Your task to perform on an android device: clear all cookies in the chrome app Image 0: 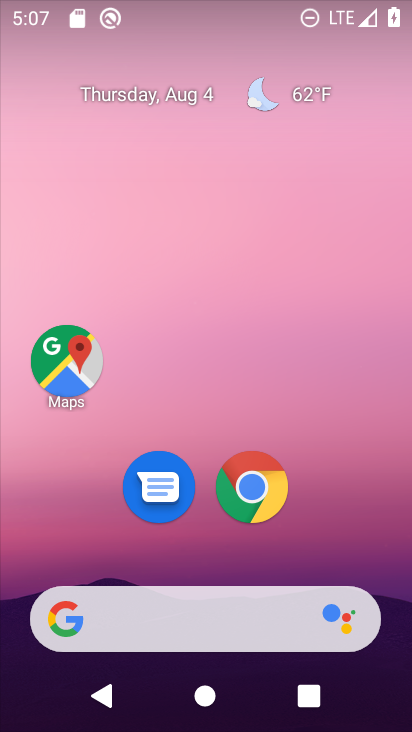
Step 0: click (240, 489)
Your task to perform on an android device: clear all cookies in the chrome app Image 1: 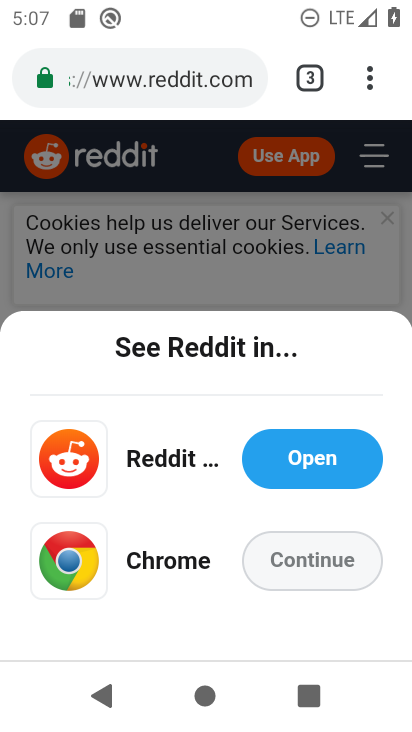
Step 1: drag from (364, 81) to (141, 148)
Your task to perform on an android device: clear all cookies in the chrome app Image 2: 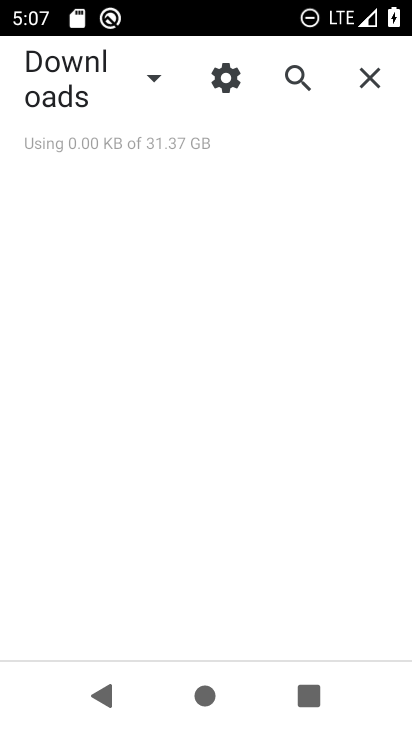
Step 2: press back button
Your task to perform on an android device: clear all cookies in the chrome app Image 3: 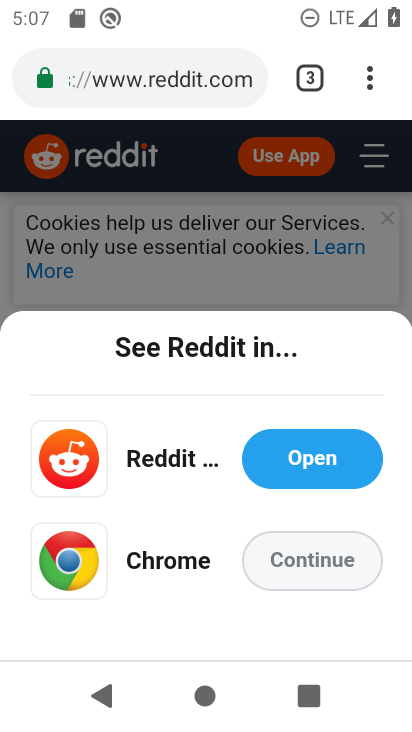
Step 3: drag from (370, 75) to (98, 436)
Your task to perform on an android device: clear all cookies in the chrome app Image 4: 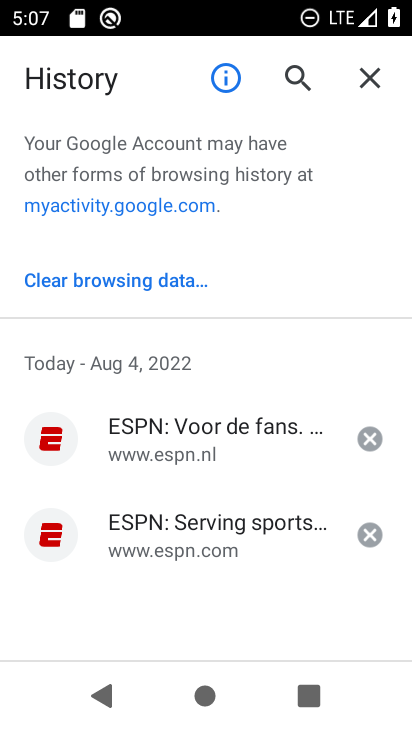
Step 4: click (86, 272)
Your task to perform on an android device: clear all cookies in the chrome app Image 5: 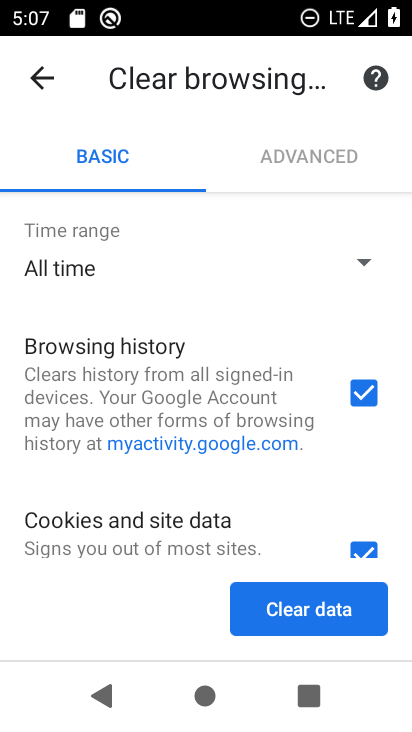
Step 5: drag from (208, 491) to (227, 350)
Your task to perform on an android device: clear all cookies in the chrome app Image 6: 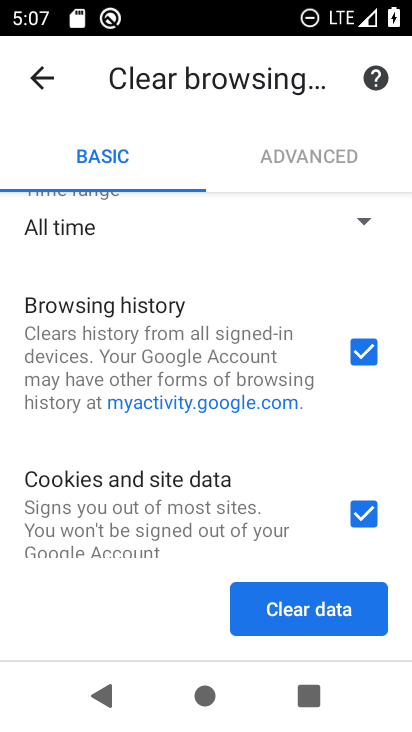
Step 6: click (366, 345)
Your task to perform on an android device: clear all cookies in the chrome app Image 7: 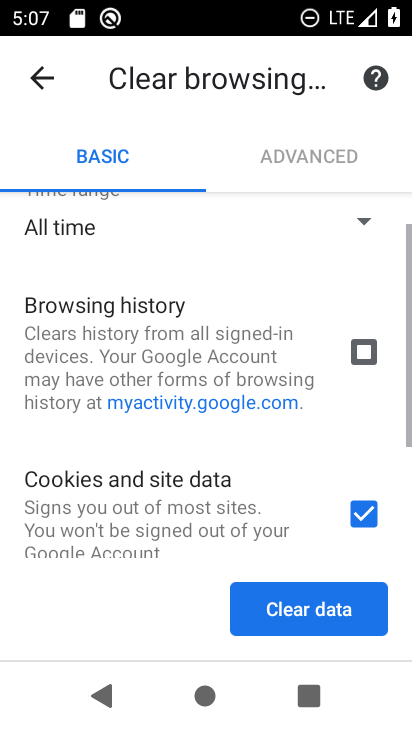
Step 7: drag from (151, 486) to (259, 189)
Your task to perform on an android device: clear all cookies in the chrome app Image 8: 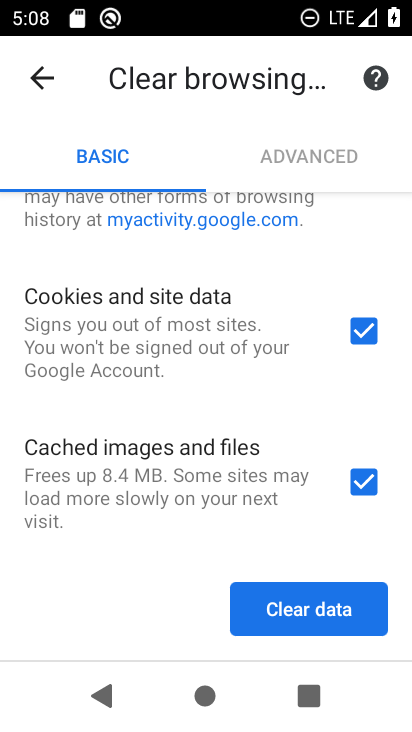
Step 8: click (369, 477)
Your task to perform on an android device: clear all cookies in the chrome app Image 9: 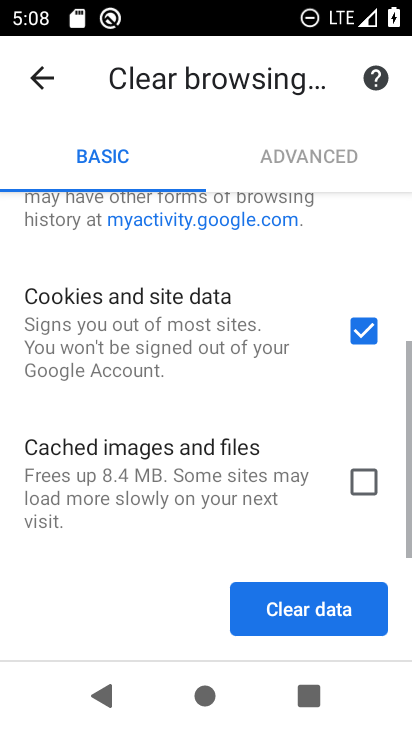
Step 9: click (312, 620)
Your task to perform on an android device: clear all cookies in the chrome app Image 10: 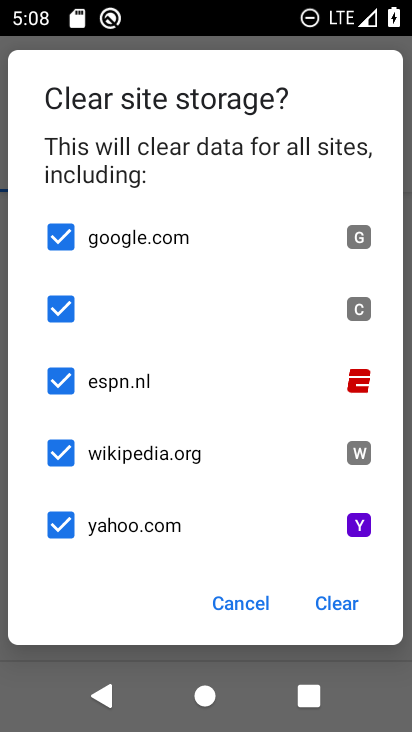
Step 10: click (352, 593)
Your task to perform on an android device: clear all cookies in the chrome app Image 11: 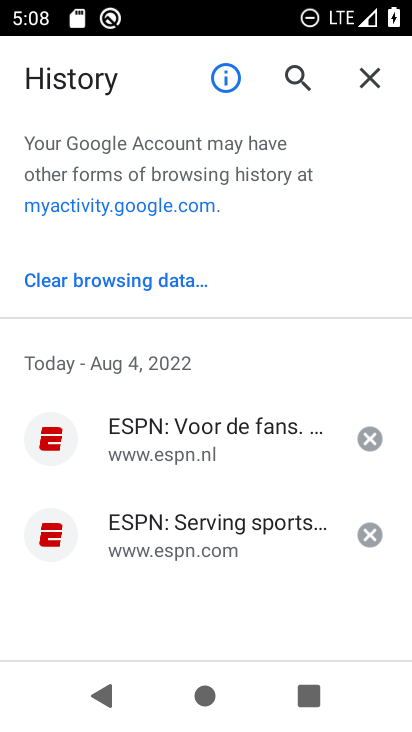
Step 11: task complete